Your task to perform on an android device: open app "Google Chat" Image 0: 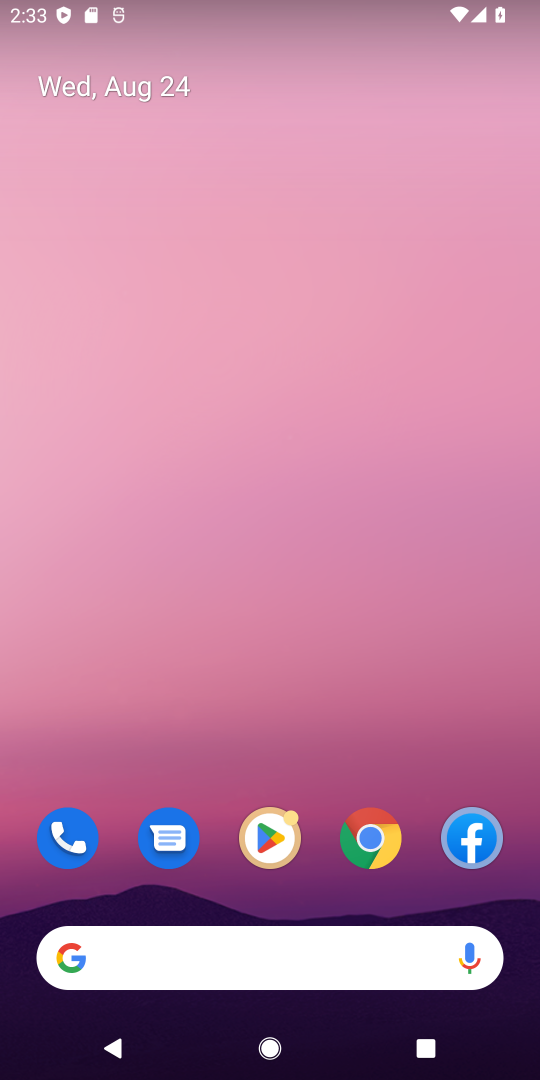
Step 0: press home button
Your task to perform on an android device: open app "Google Chat" Image 1: 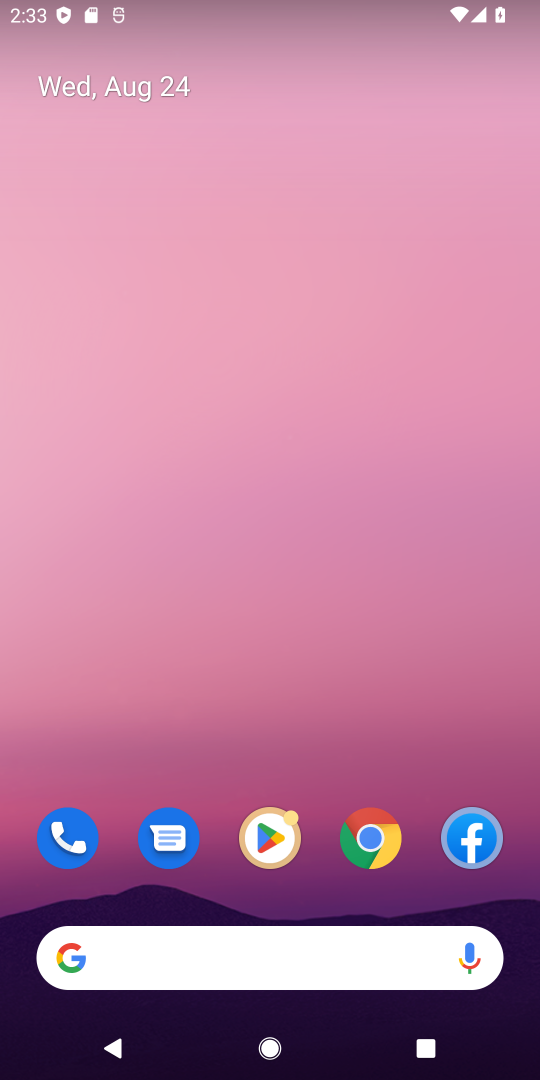
Step 1: drag from (490, 667) to (485, 90)
Your task to perform on an android device: open app "Google Chat" Image 2: 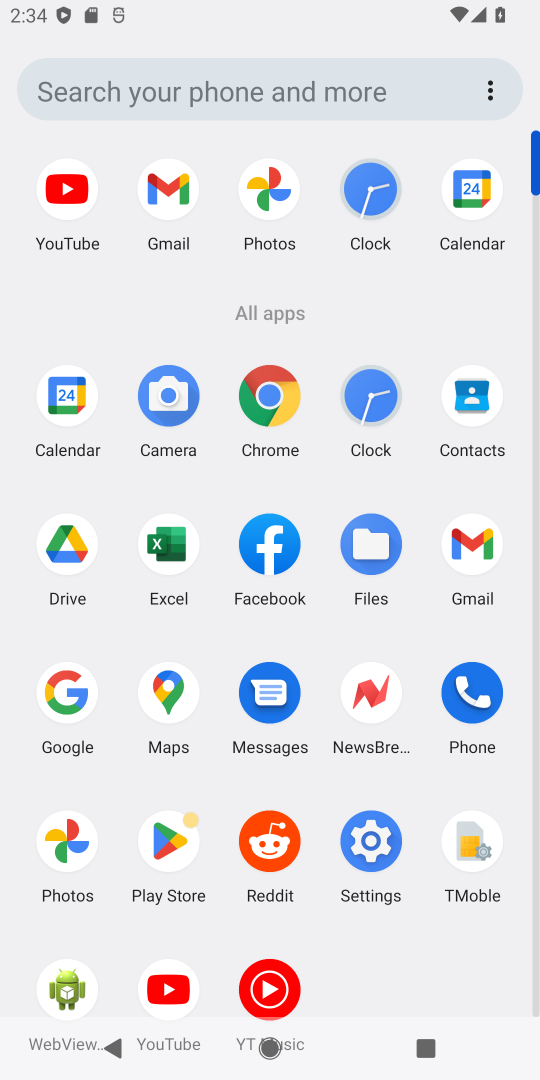
Step 2: click (173, 844)
Your task to perform on an android device: open app "Google Chat" Image 3: 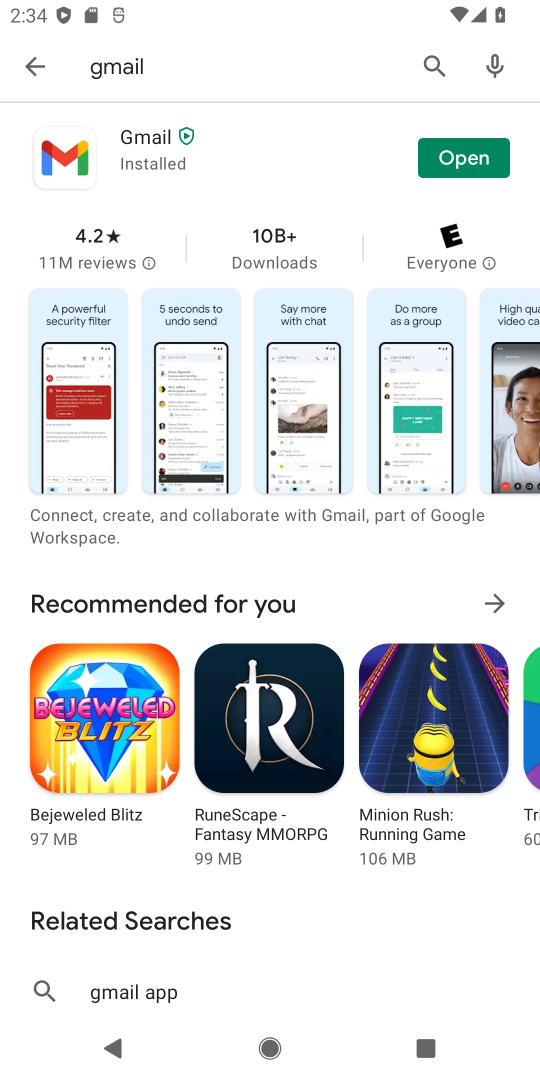
Step 3: press back button
Your task to perform on an android device: open app "Google Chat" Image 4: 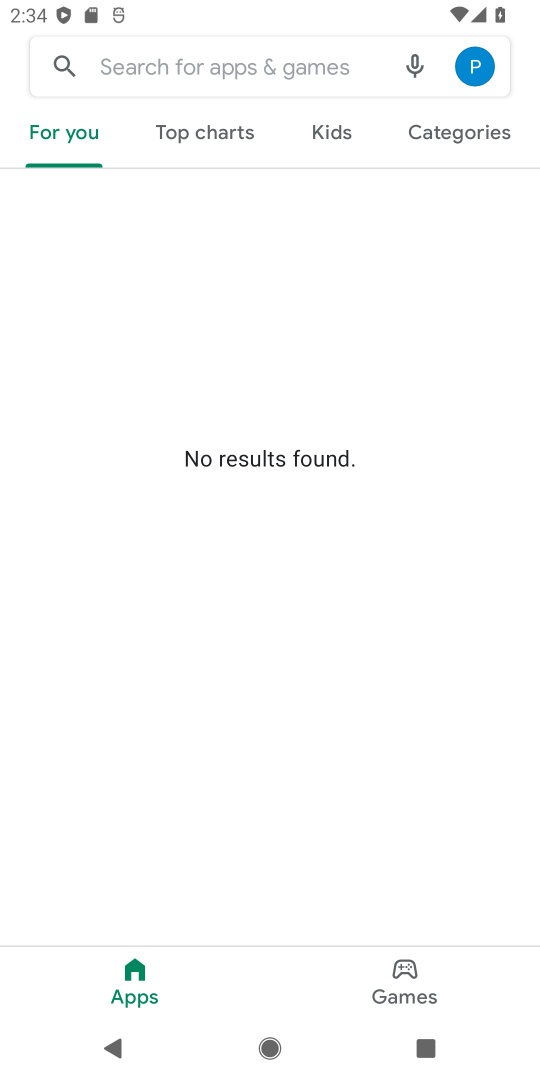
Step 4: click (319, 60)
Your task to perform on an android device: open app "Google Chat" Image 5: 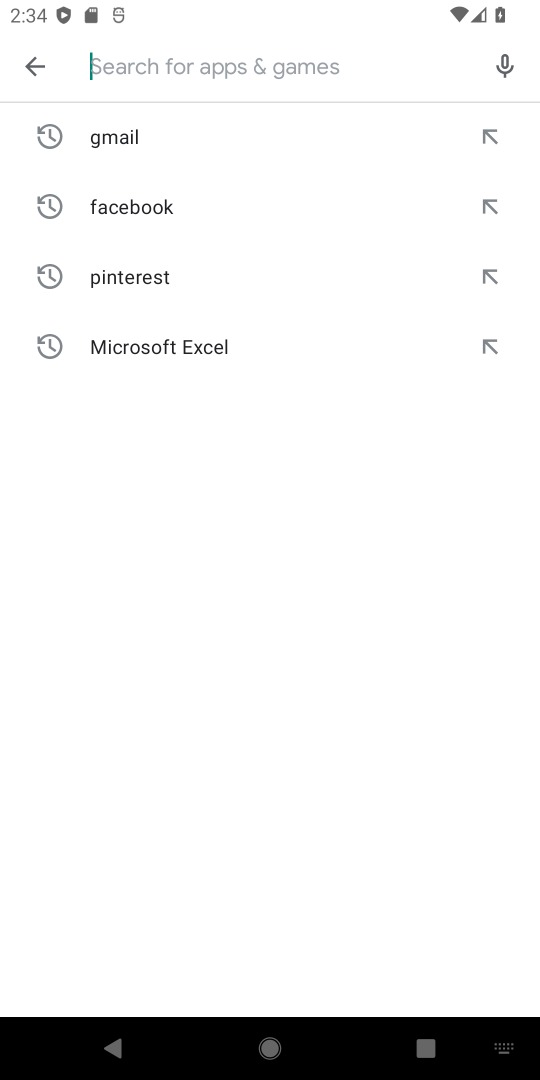
Step 5: type "google chat"
Your task to perform on an android device: open app "Google Chat" Image 6: 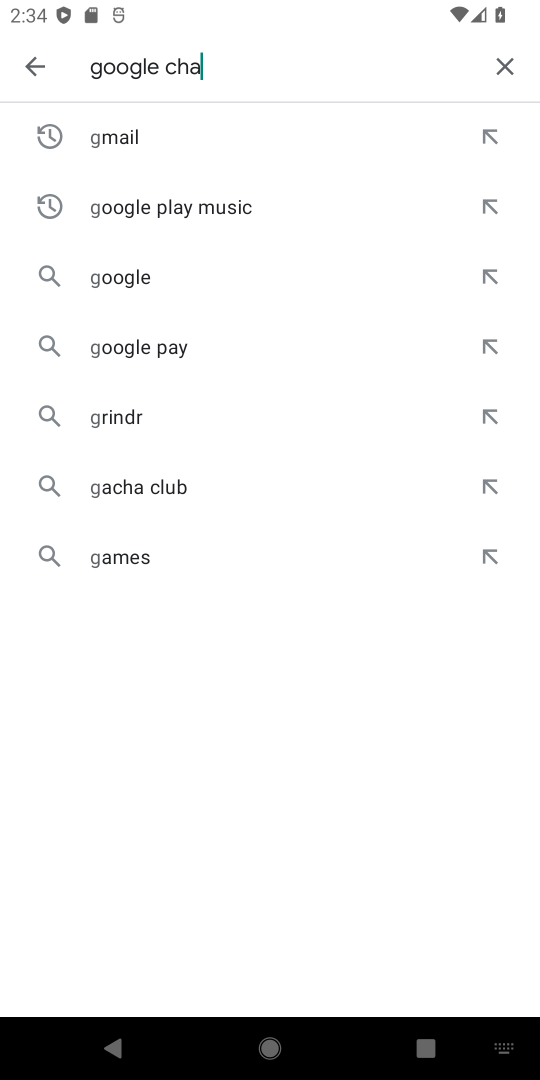
Step 6: press enter
Your task to perform on an android device: open app "Google Chat" Image 7: 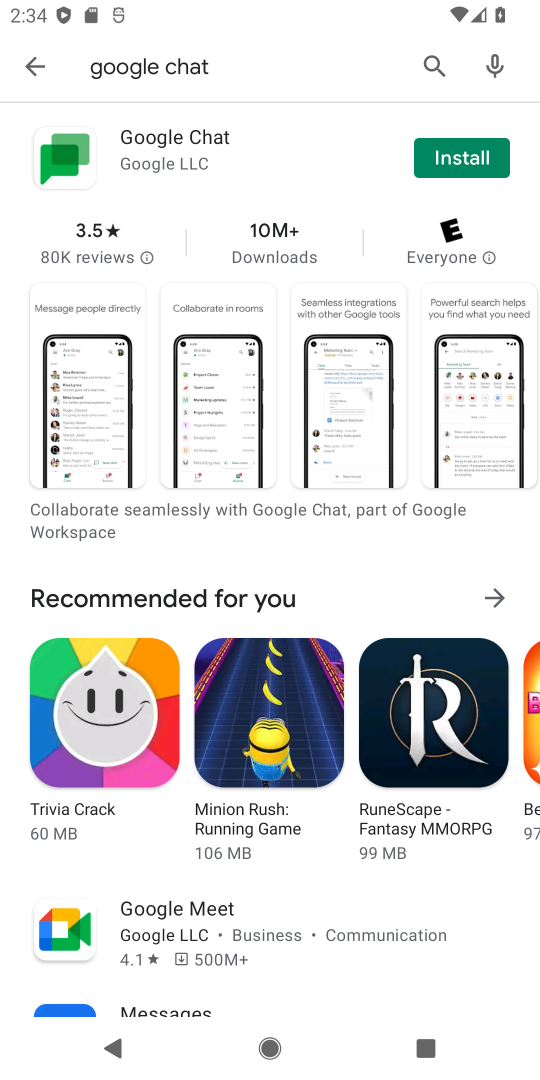
Step 7: task complete